Your task to perform on an android device: Go to accessibility settings Image 0: 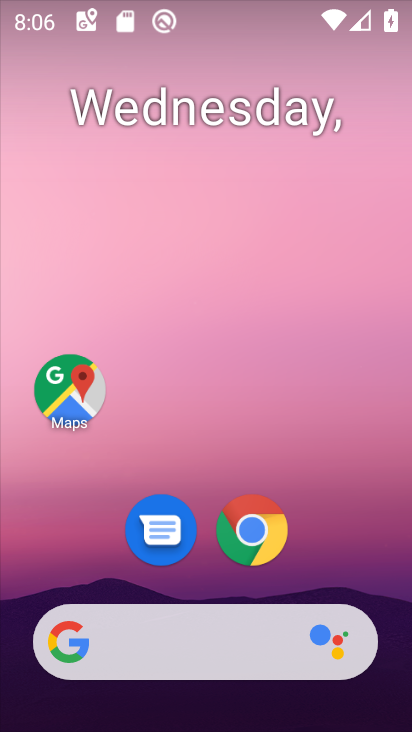
Step 0: drag from (392, 637) to (362, 49)
Your task to perform on an android device: Go to accessibility settings Image 1: 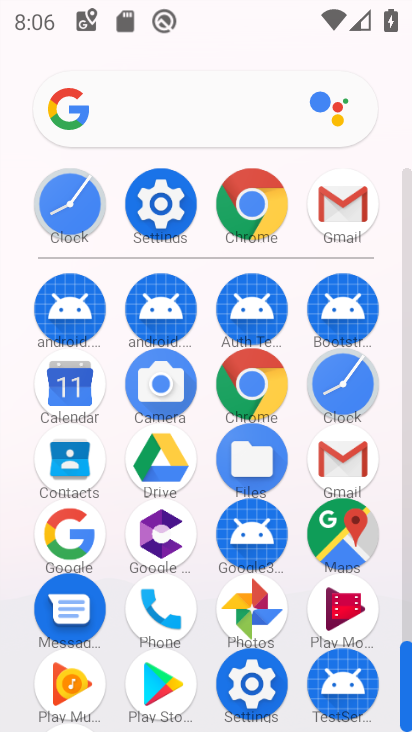
Step 1: click (272, 676)
Your task to perform on an android device: Go to accessibility settings Image 2: 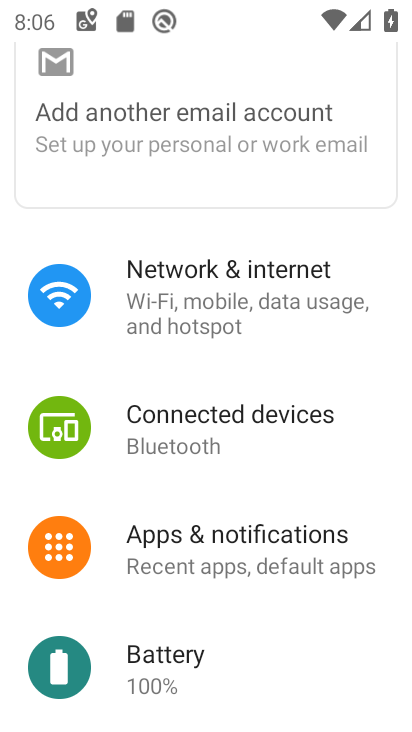
Step 2: drag from (272, 676) to (266, 128)
Your task to perform on an android device: Go to accessibility settings Image 3: 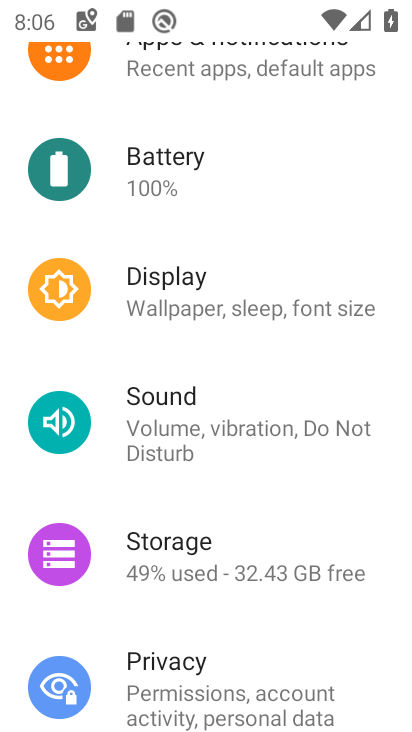
Step 3: drag from (249, 659) to (280, 106)
Your task to perform on an android device: Go to accessibility settings Image 4: 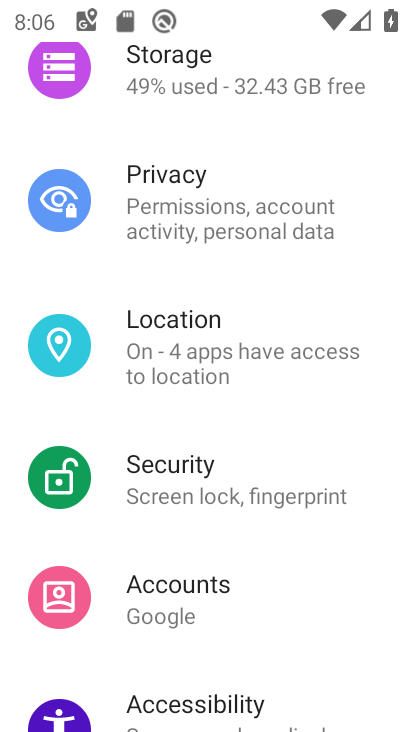
Step 4: click (218, 708)
Your task to perform on an android device: Go to accessibility settings Image 5: 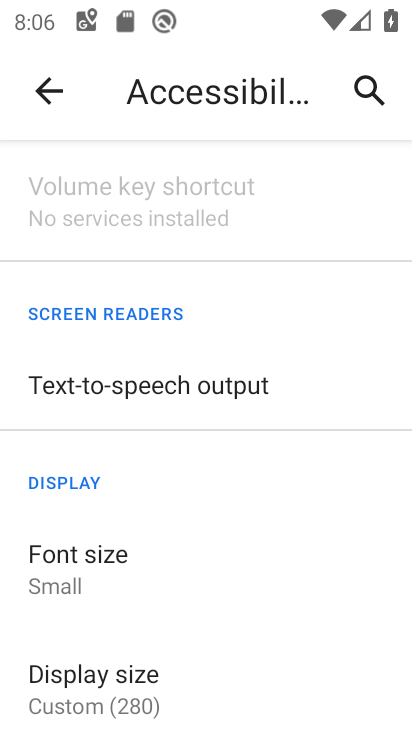
Step 5: task complete